Your task to perform on an android device: Go to notification settings Image 0: 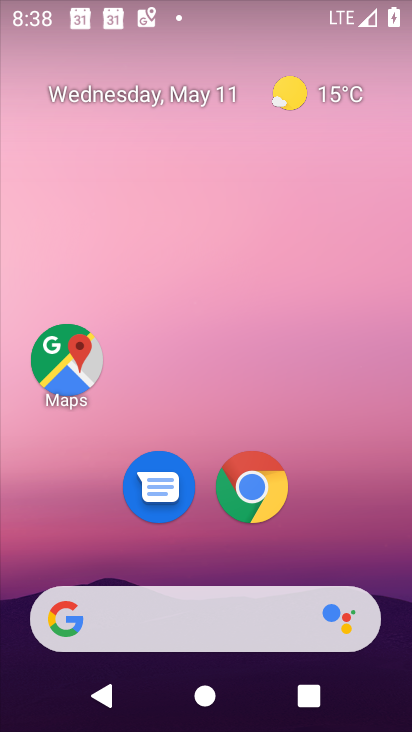
Step 0: drag from (253, 659) to (122, 109)
Your task to perform on an android device: Go to notification settings Image 1: 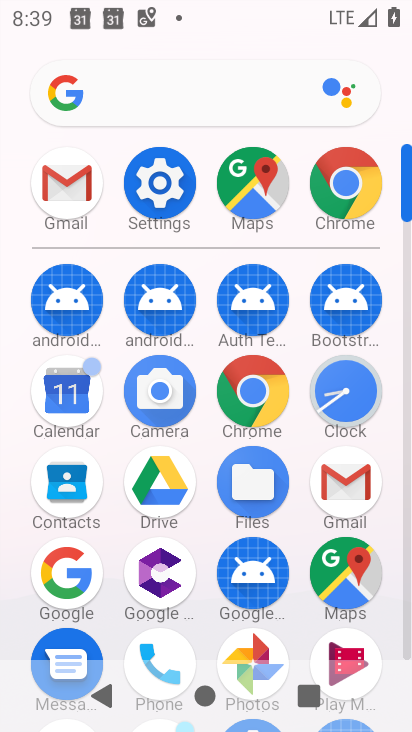
Step 1: click (154, 206)
Your task to perform on an android device: Go to notification settings Image 2: 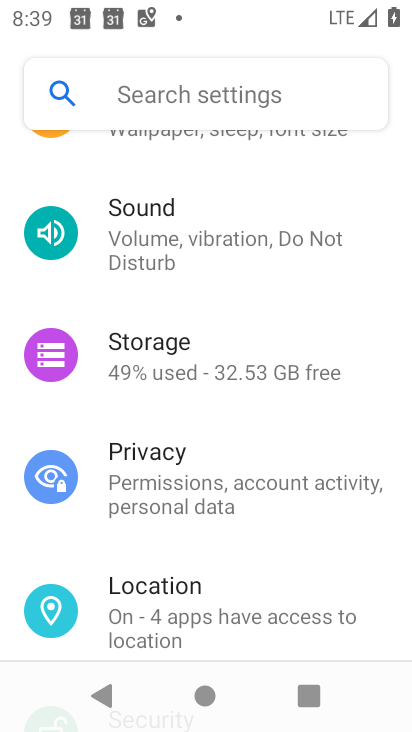
Step 2: click (150, 85)
Your task to perform on an android device: Go to notification settings Image 3: 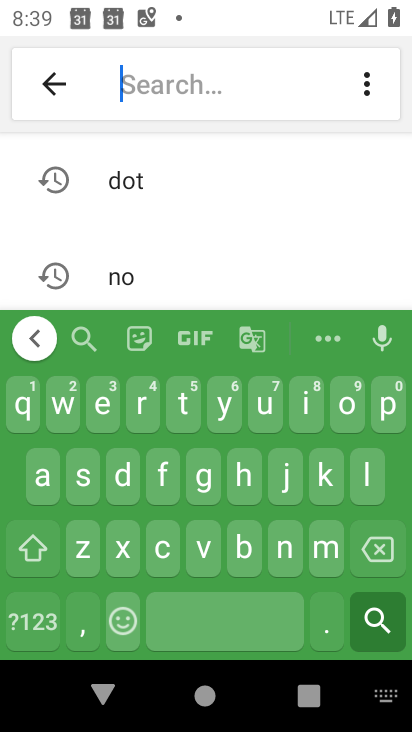
Step 3: click (287, 551)
Your task to perform on an android device: Go to notification settings Image 4: 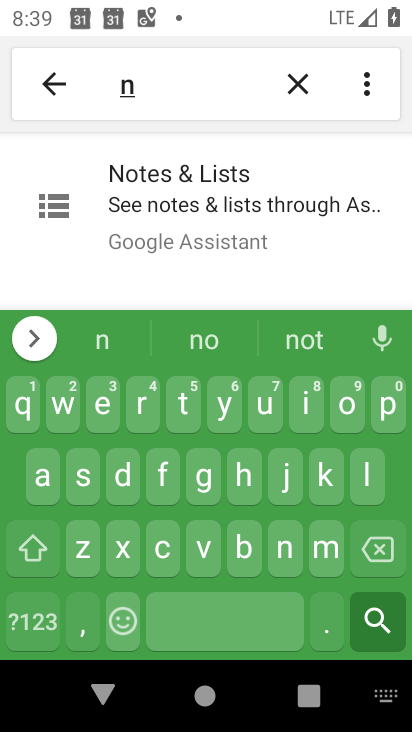
Step 4: click (341, 417)
Your task to perform on an android device: Go to notification settings Image 5: 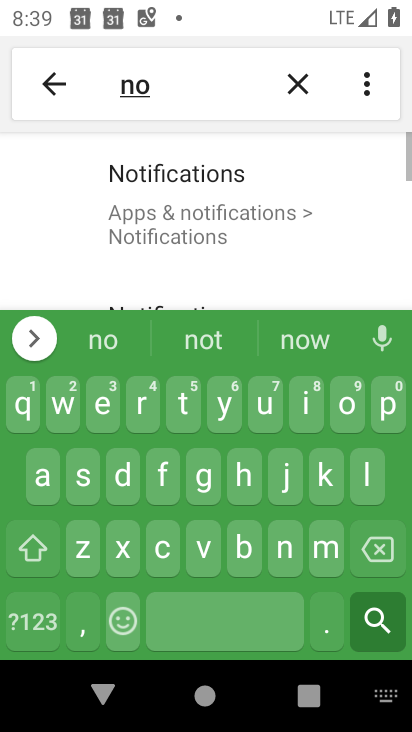
Step 5: click (172, 226)
Your task to perform on an android device: Go to notification settings Image 6: 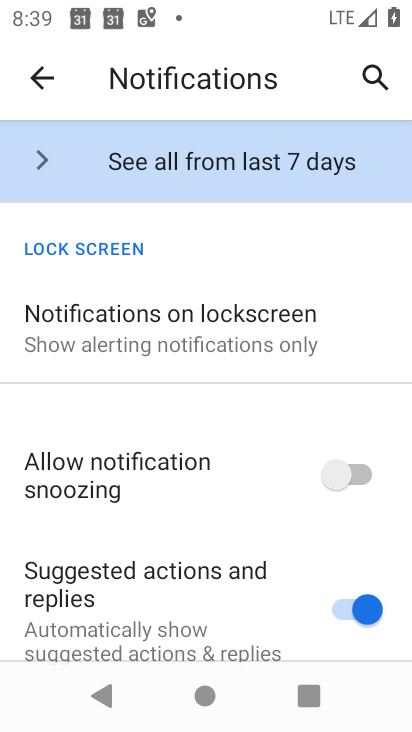
Step 6: click (151, 319)
Your task to perform on an android device: Go to notification settings Image 7: 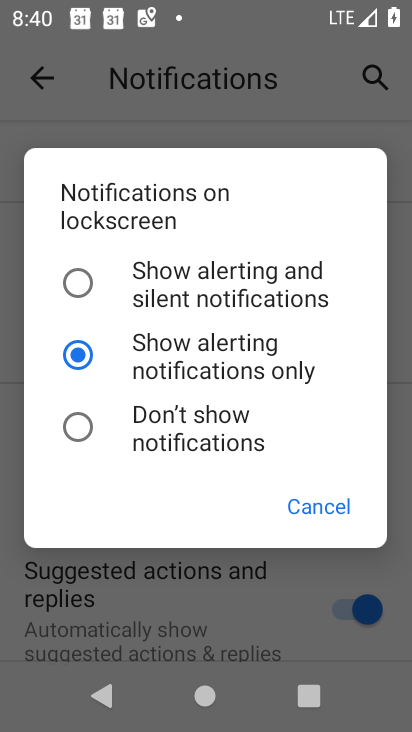
Step 7: task complete